Your task to perform on an android device: open app "Google Docs" Image 0: 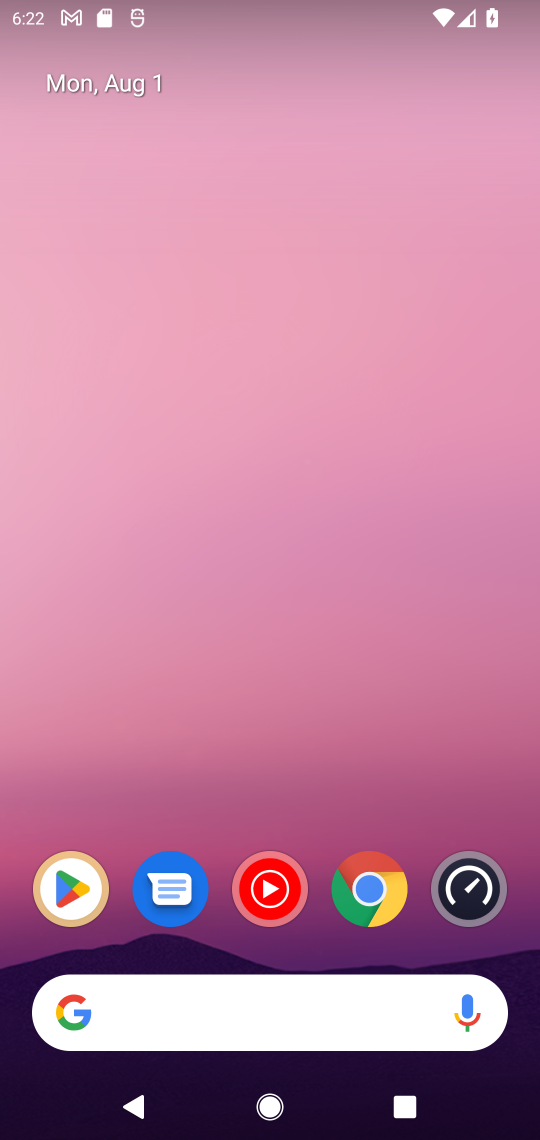
Step 0: click (202, 293)
Your task to perform on an android device: open app "Google Docs" Image 1: 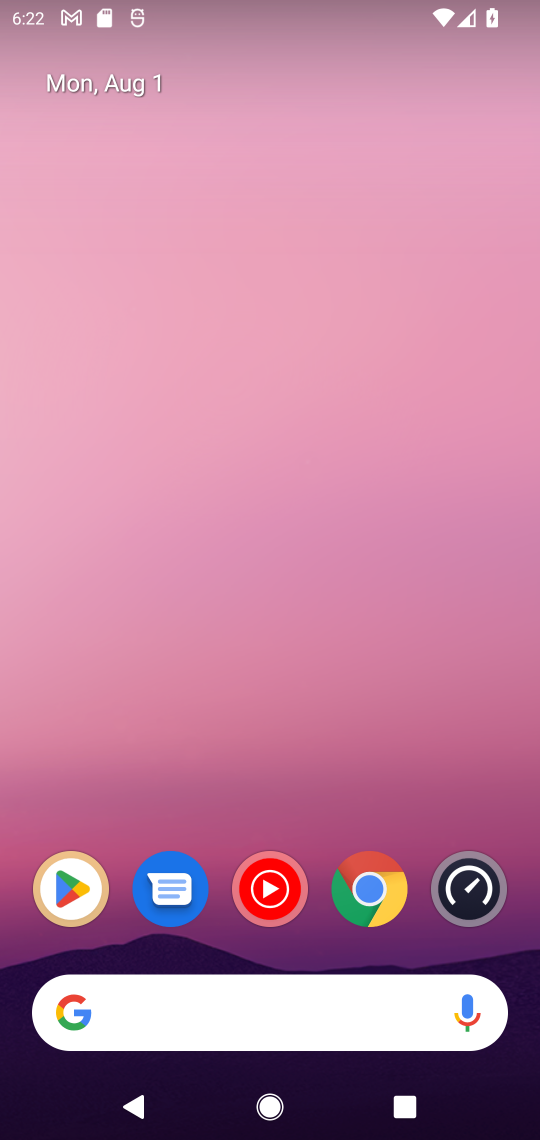
Step 1: drag from (262, 885) to (262, 243)
Your task to perform on an android device: open app "Google Docs" Image 2: 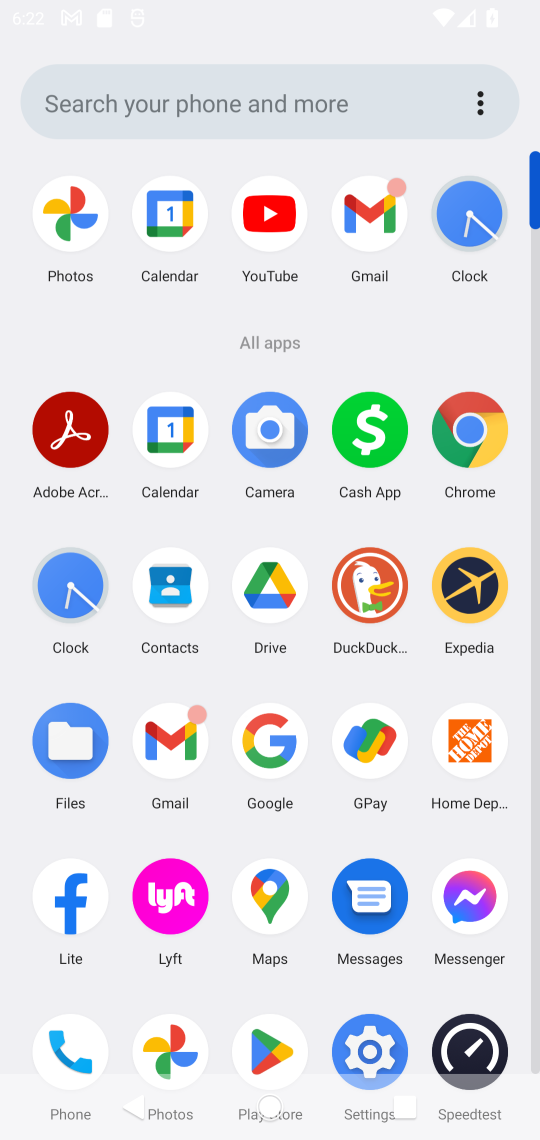
Step 2: drag from (343, 627) to (193, 209)
Your task to perform on an android device: open app "Google Docs" Image 3: 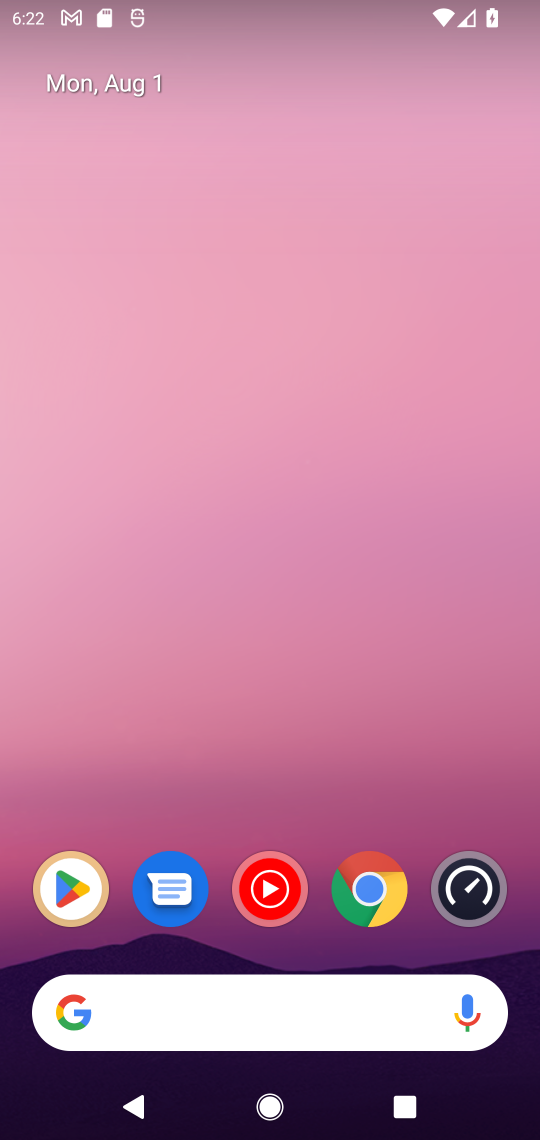
Step 3: click (264, 347)
Your task to perform on an android device: open app "Google Docs" Image 4: 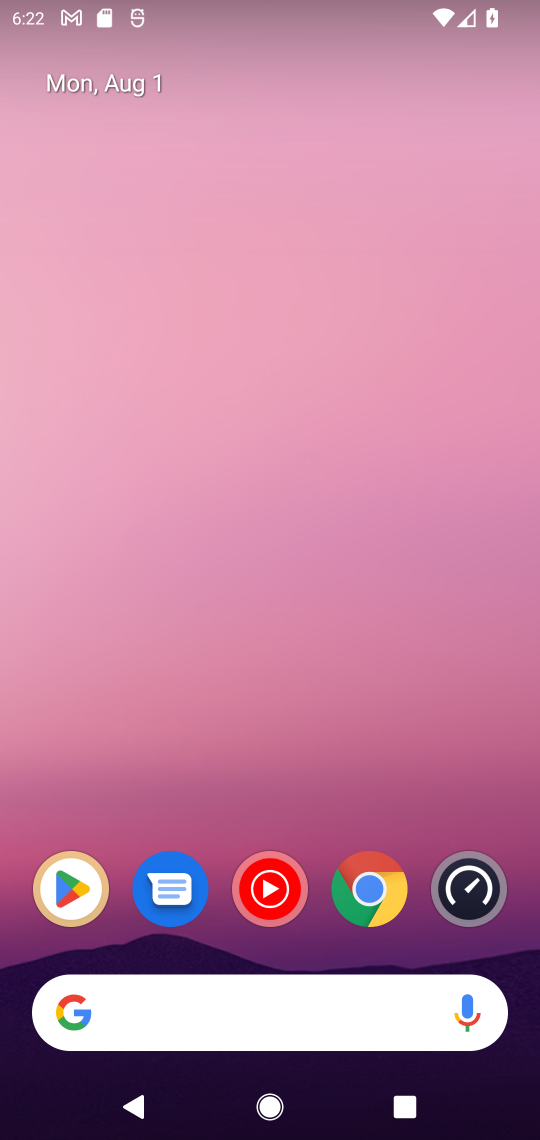
Step 4: click (245, 527)
Your task to perform on an android device: open app "Google Docs" Image 5: 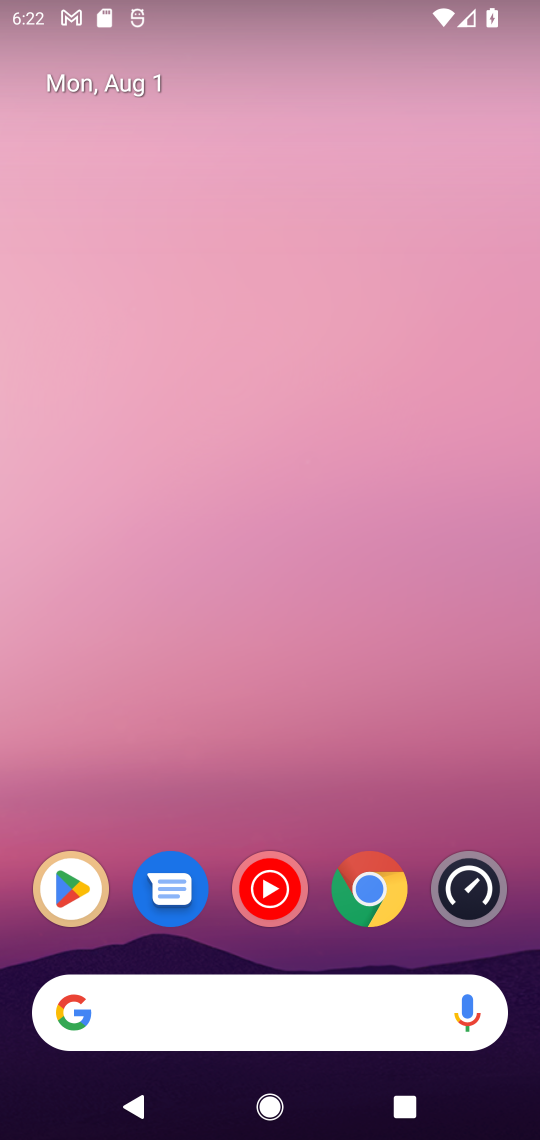
Step 5: drag from (340, 519) to (387, 320)
Your task to perform on an android device: open app "Google Docs" Image 6: 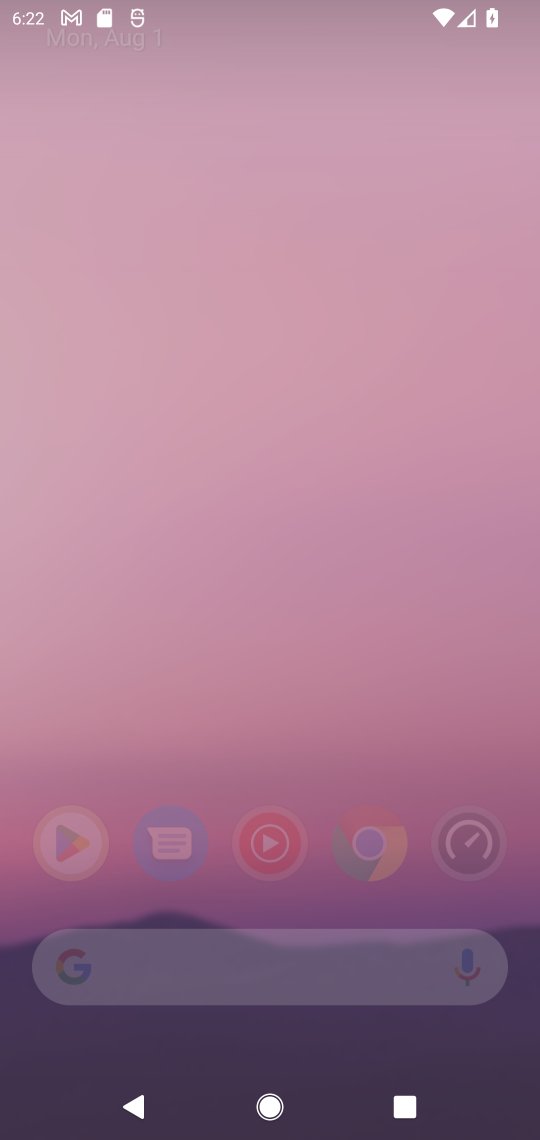
Step 6: drag from (290, 748) to (290, 246)
Your task to perform on an android device: open app "Google Docs" Image 7: 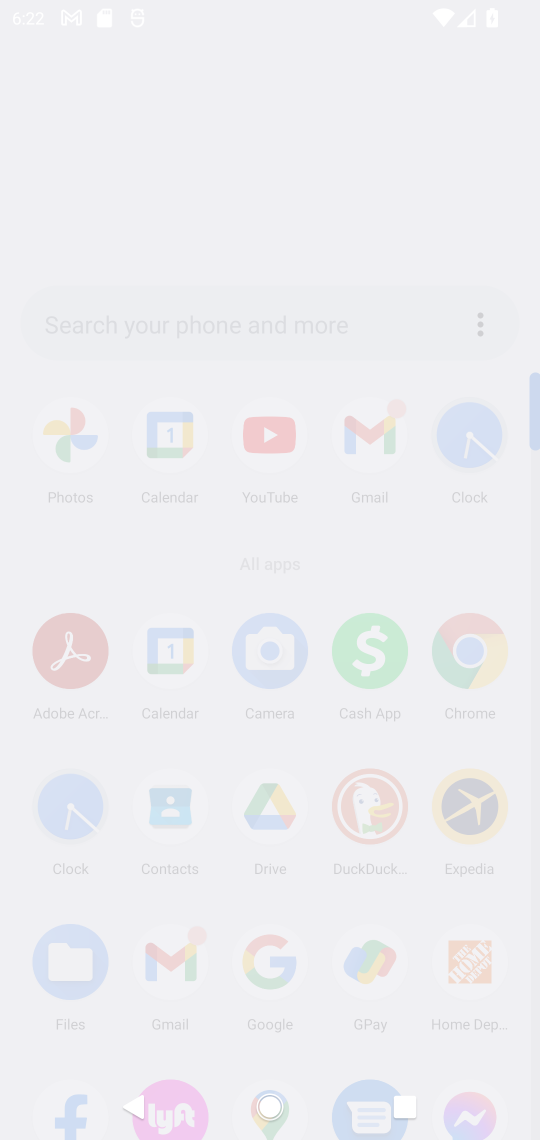
Step 7: drag from (341, 707) to (341, 122)
Your task to perform on an android device: open app "Google Docs" Image 8: 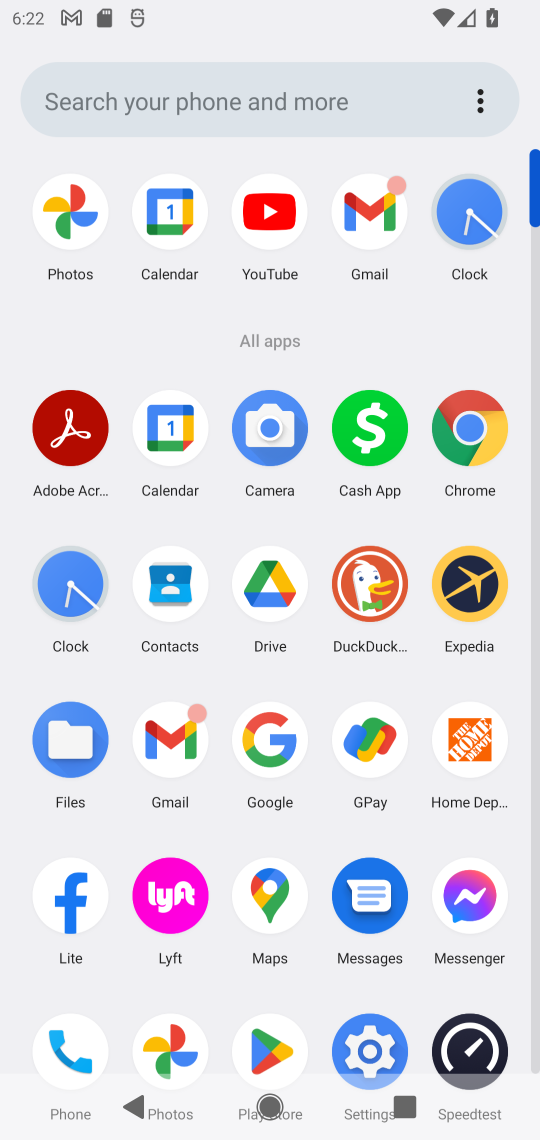
Step 8: drag from (258, 519) to (258, 96)
Your task to perform on an android device: open app "Google Docs" Image 9: 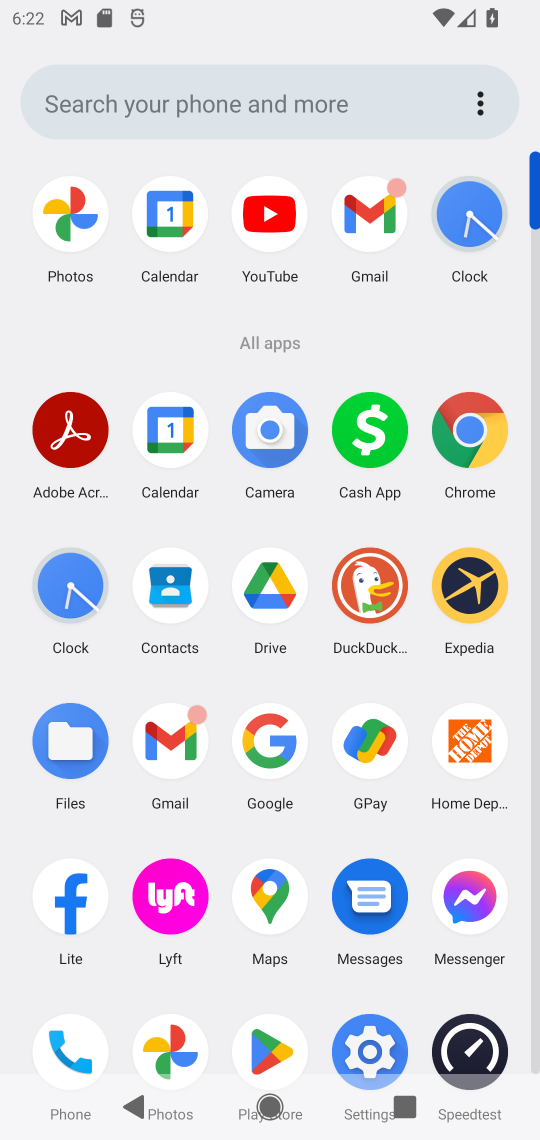
Step 9: drag from (258, 541) to (258, 148)
Your task to perform on an android device: open app "Google Docs" Image 10: 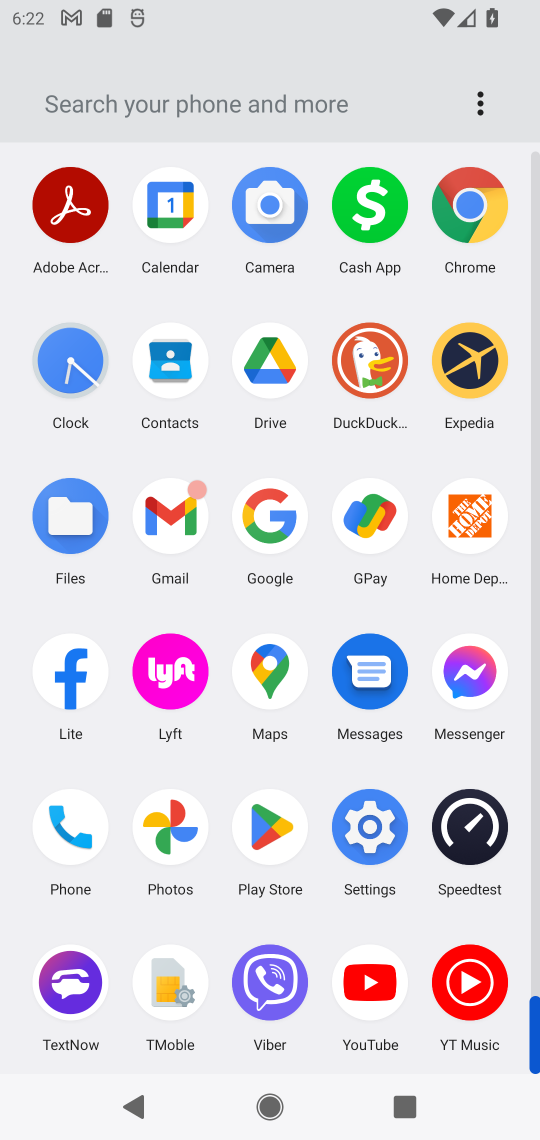
Step 10: click (265, 823)
Your task to perform on an android device: open app "Google Docs" Image 11: 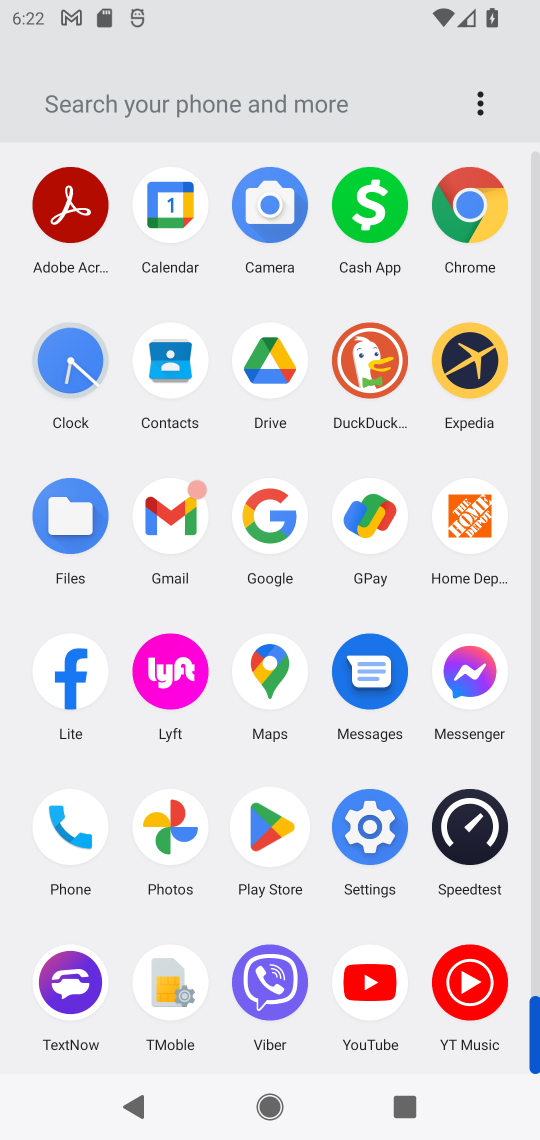
Step 11: click (282, 835)
Your task to perform on an android device: open app "Google Docs" Image 12: 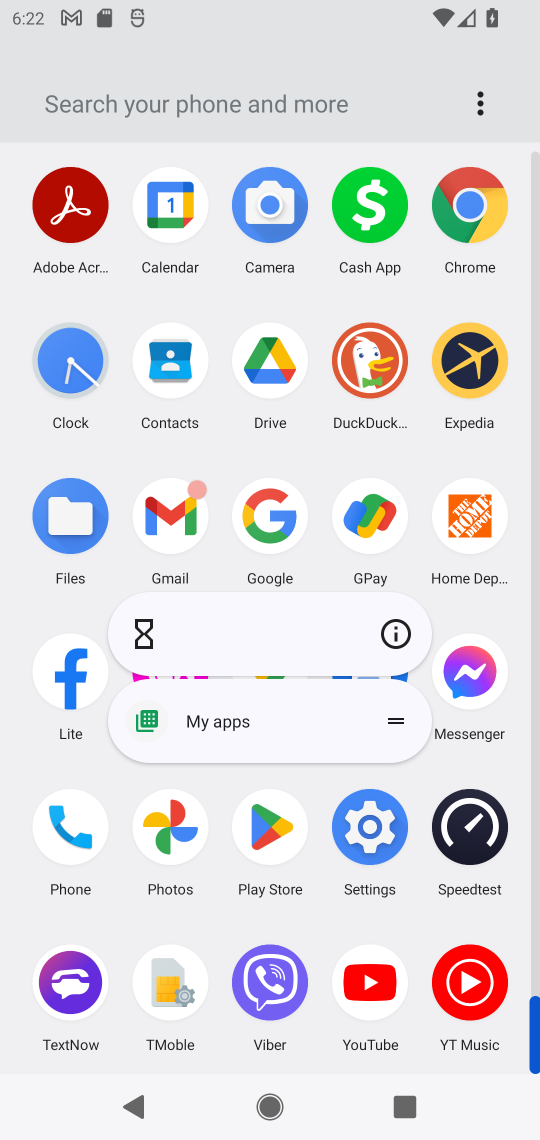
Step 12: click (273, 827)
Your task to perform on an android device: open app "Google Docs" Image 13: 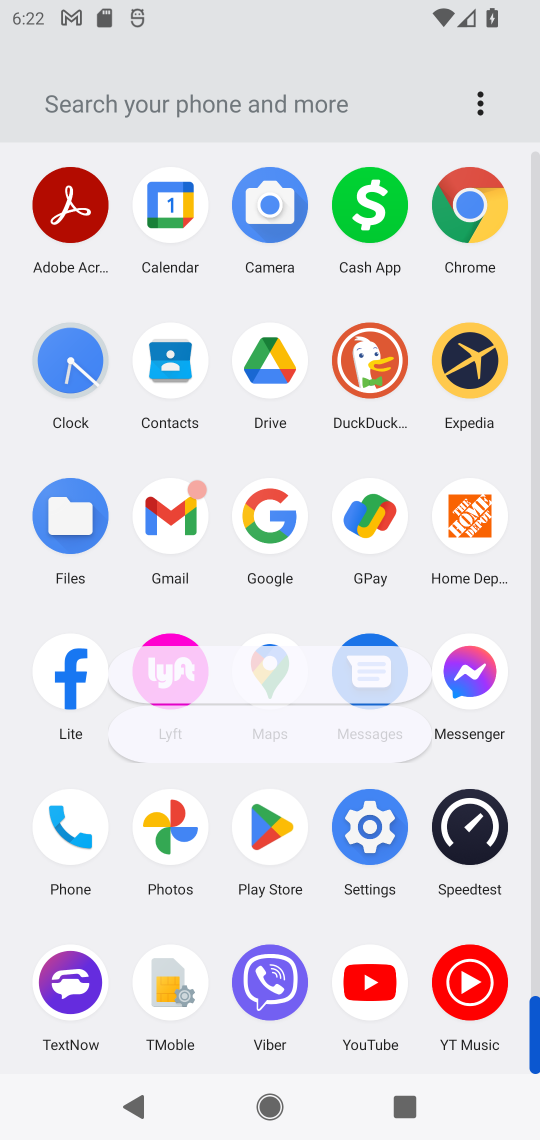
Step 13: click (276, 830)
Your task to perform on an android device: open app "Google Docs" Image 14: 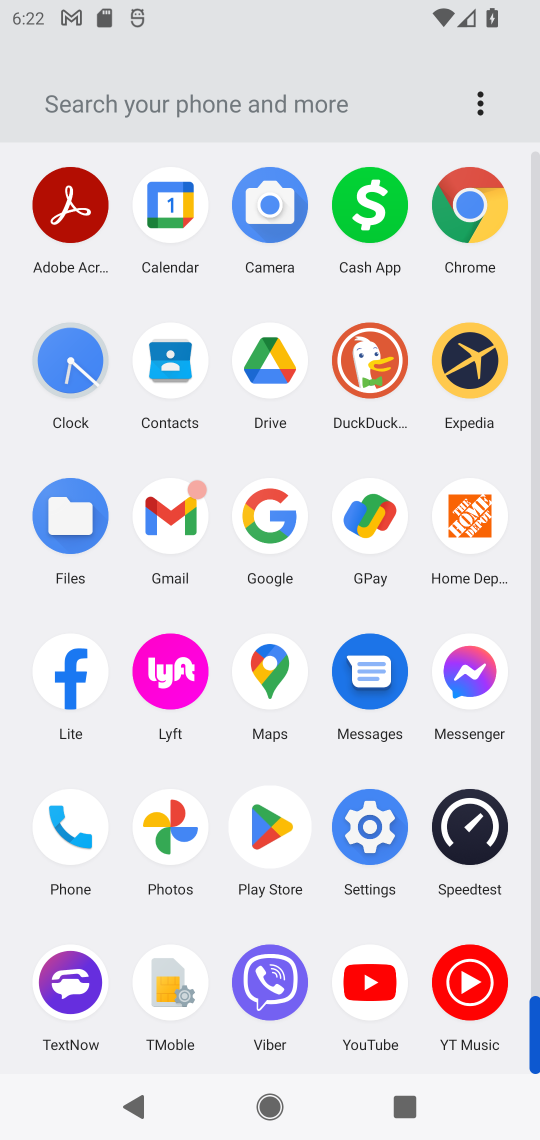
Step 14: click (276, 832)
Your task to perform on an android device: open app "Google Docs" Image 15: 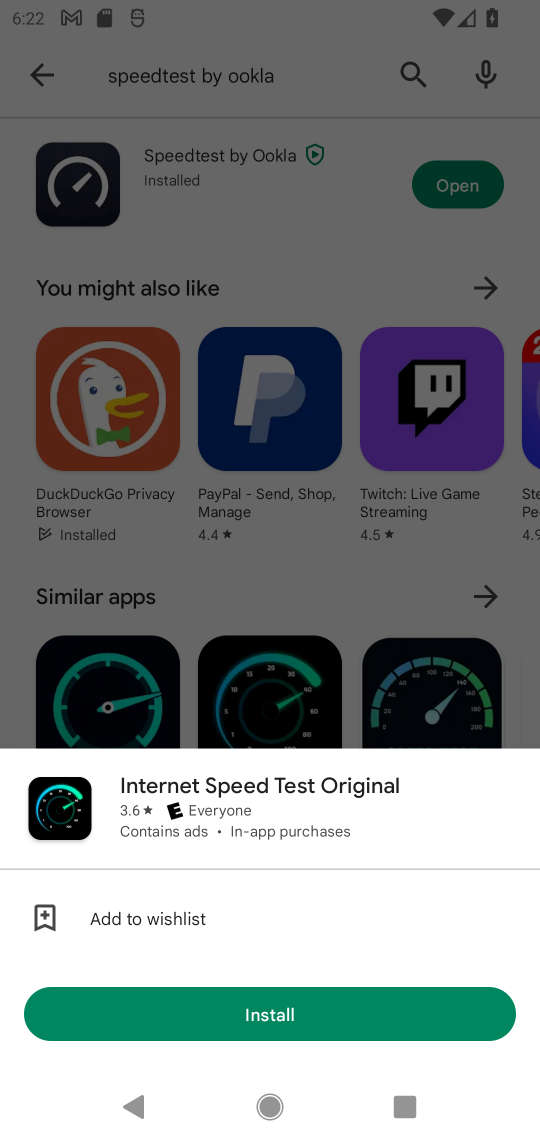
Step 15: click (39, 74)
Your task to perform on an android device: open app "Google Docs" Image 16: 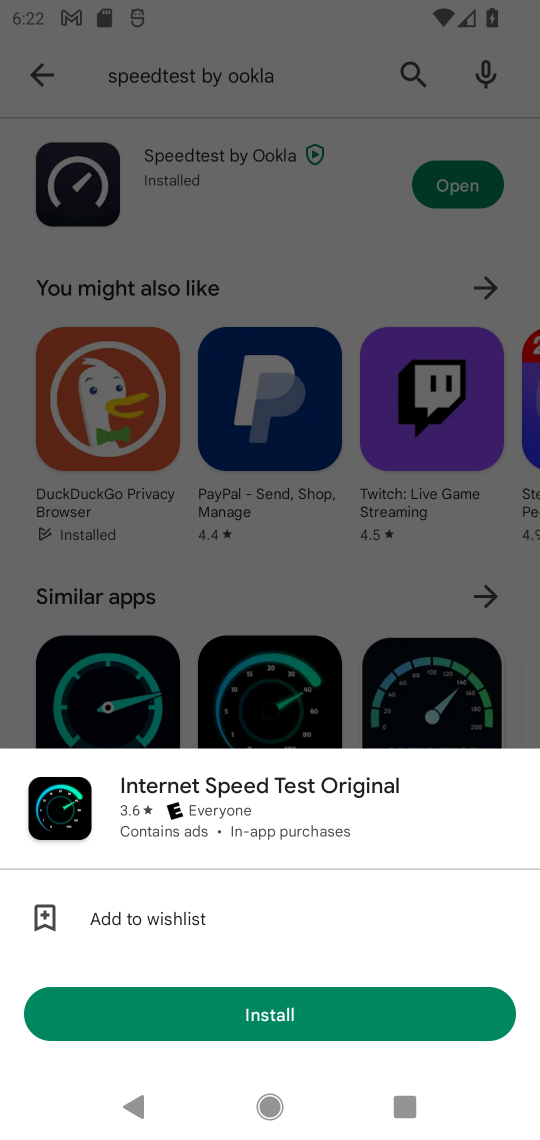
Step 16: click (39, 74)
Your task to perform on an android device: open app "Google Docs" Image 17: 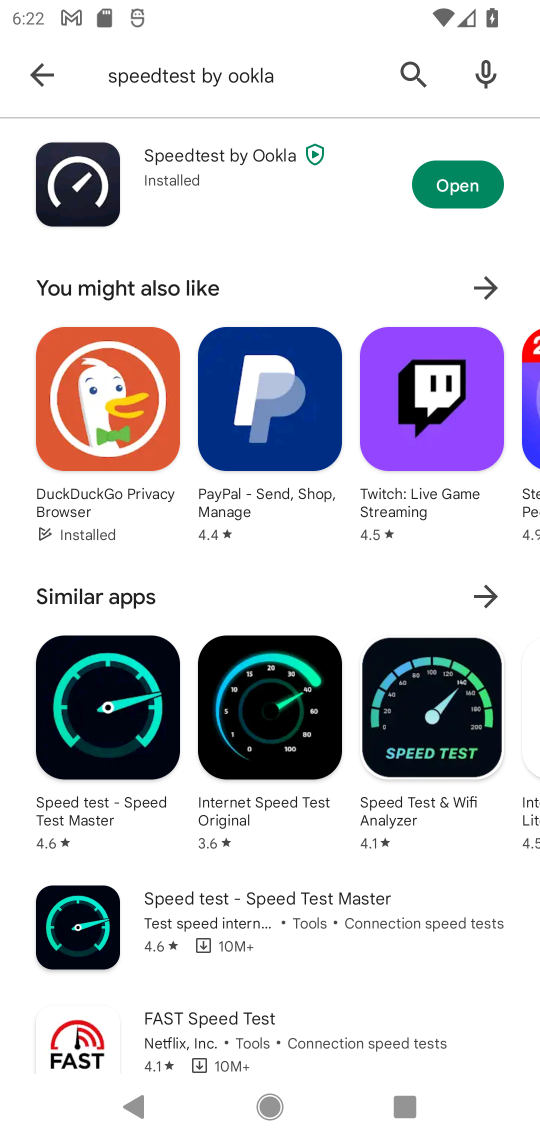
Step 17: click (51, 85)
Your task to perform on an android device: open app "Google Docs" Image 18: 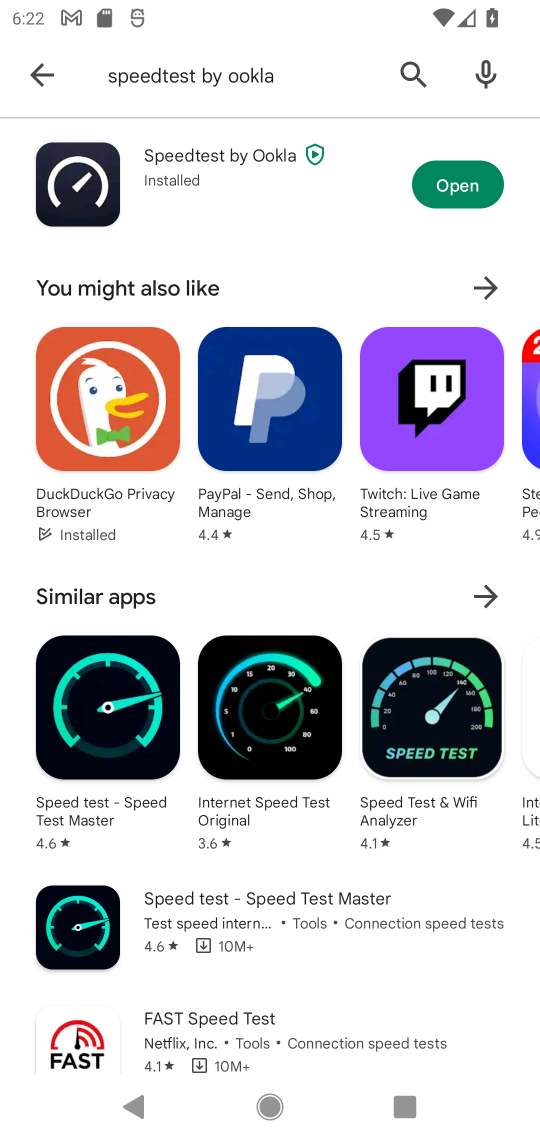
Step 18: click (36, 63)
Your task to perform on an android device: open app "Google Docs" Image 19: 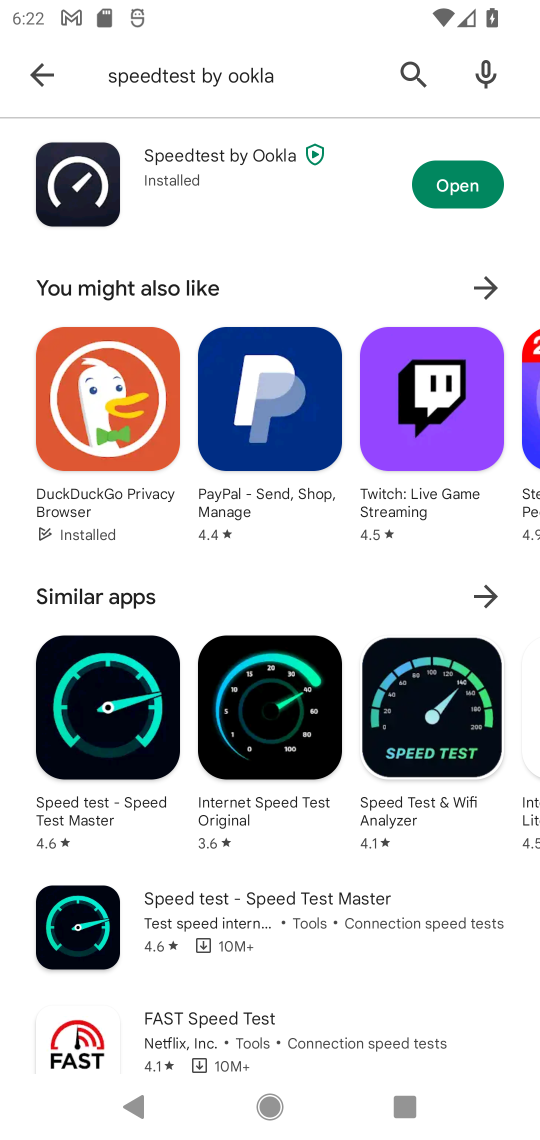
Step 19: click (35, 62)
Your task to perform on an android device: open app "Google Docs" Image 20: 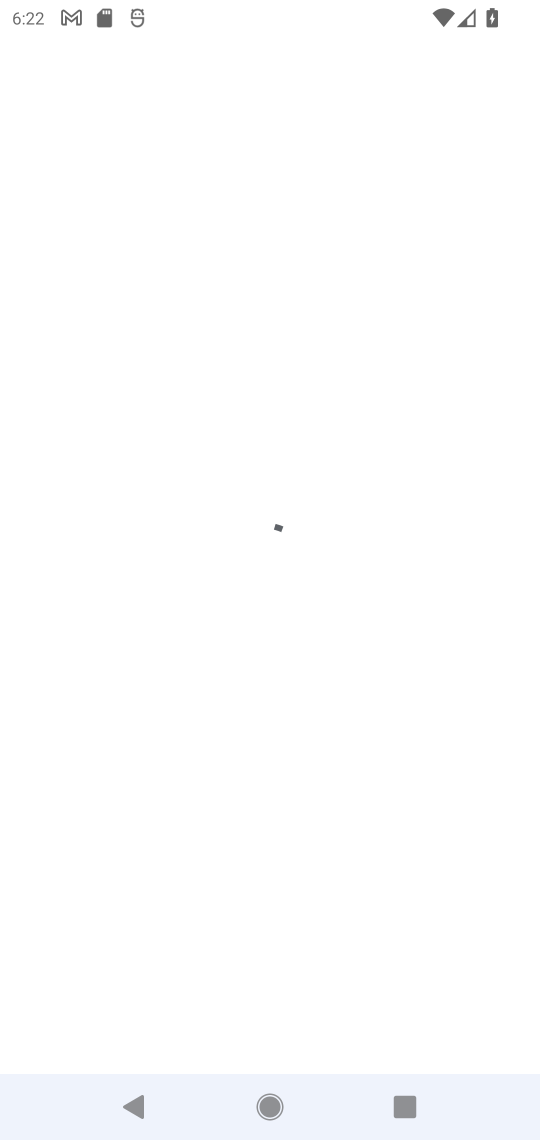
Step 20: click (36, 63)
Your task to perform on an android device: open app "Google Docs" Image 21: 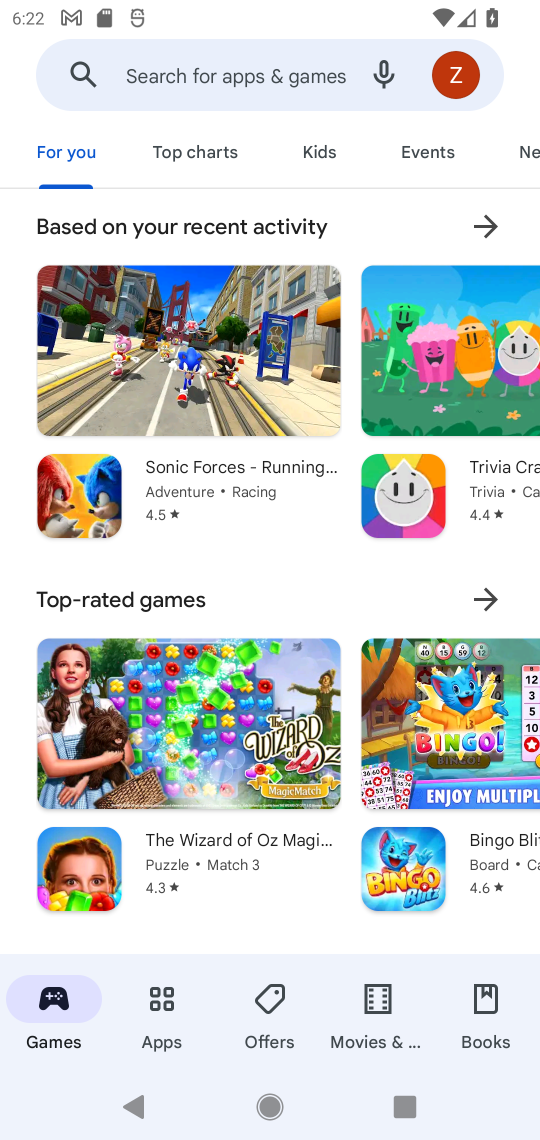
Step 21: click (148, 68)
Your task to perform on an android device: open app "Google Docs" Image 22: 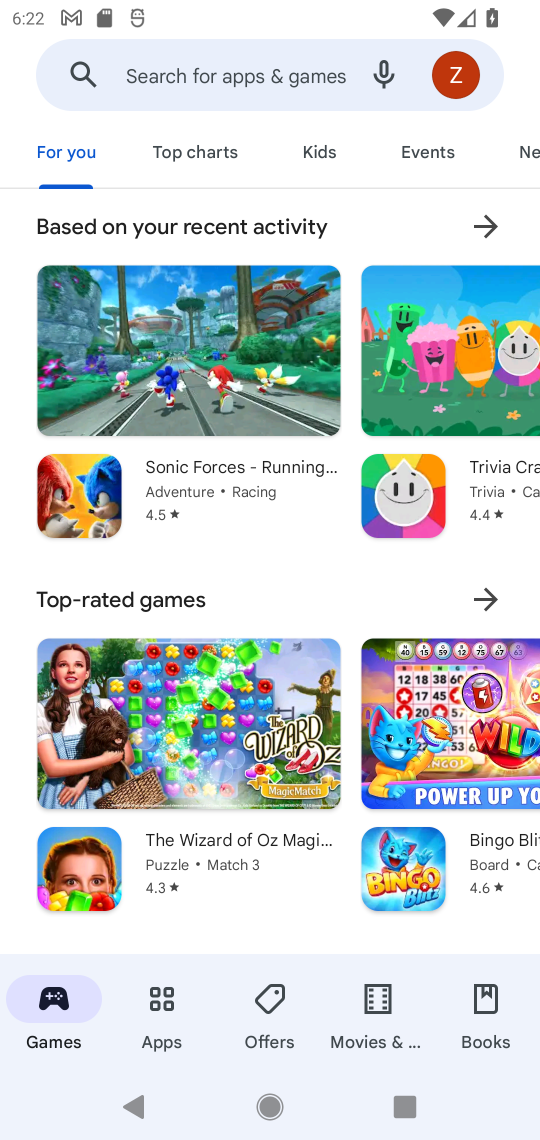
Step 22: click (148, 68)
Your task to perform on an android device: open app "Google Docs" Image 23: 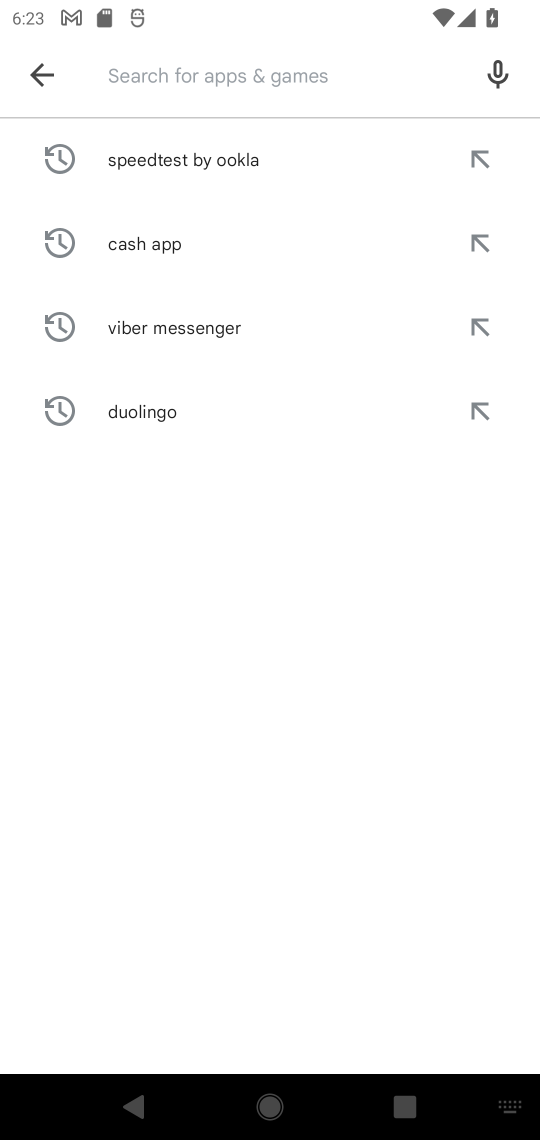
Step 23: type "Google  Docs"
Your task to perform on an android device: open app "Google Docs" Image 24: 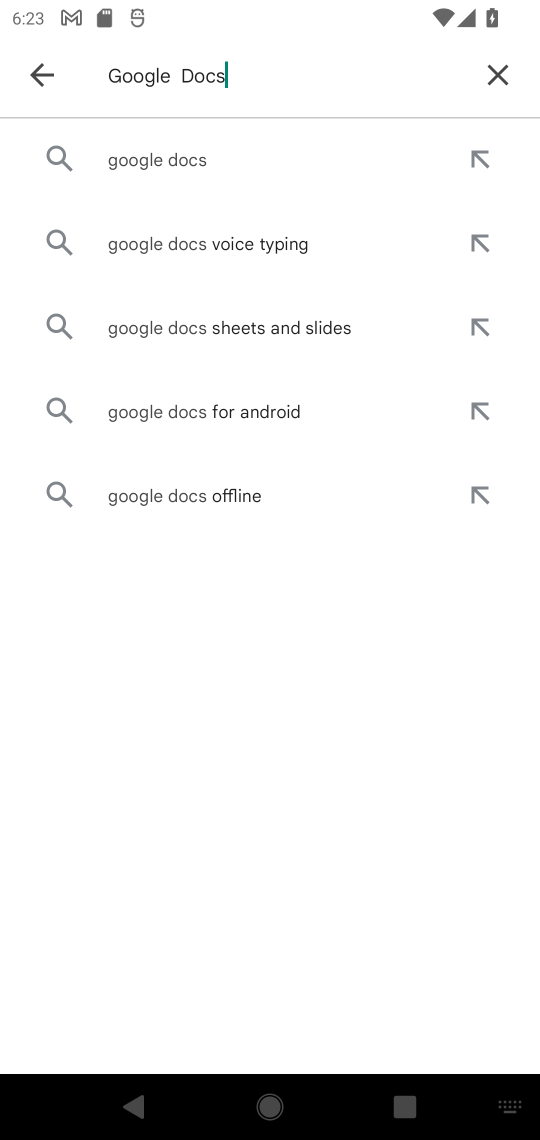
Step 24: click (162, 158)
Your task to perform on an android device: open app "Google Docs" Image 25: 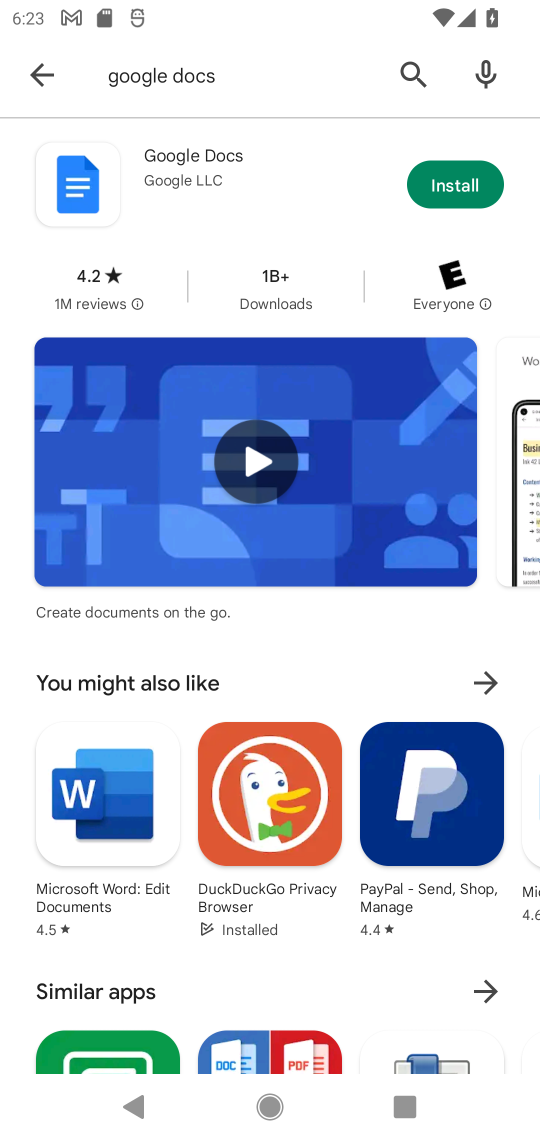
Step 25: click (449, 175)
Your task to perform on an android device: open app "Google Docs" Image 26: 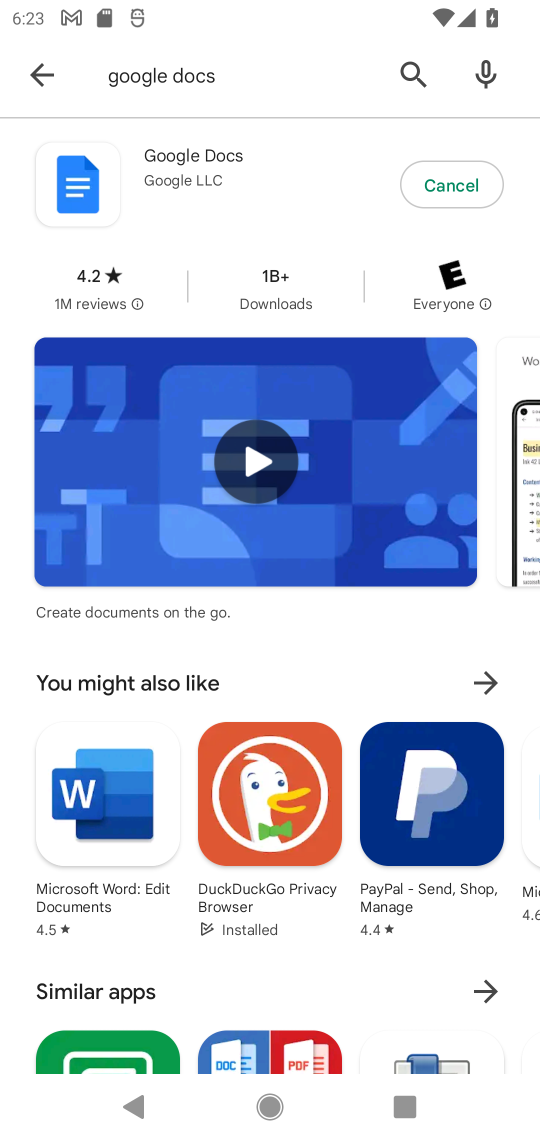
Step 26: click (453, 176)
Your task to perform on an android device: open app "Google Docs" Image 27: 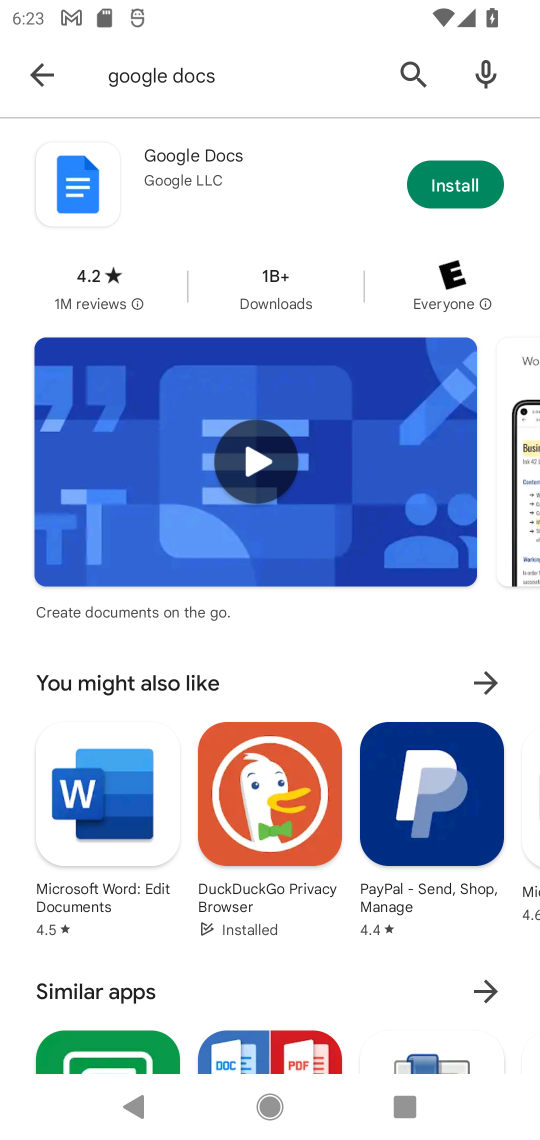
Step 27: click (453, 176)
Your task to perform on an android device: open app "Google Docs" Image 28: 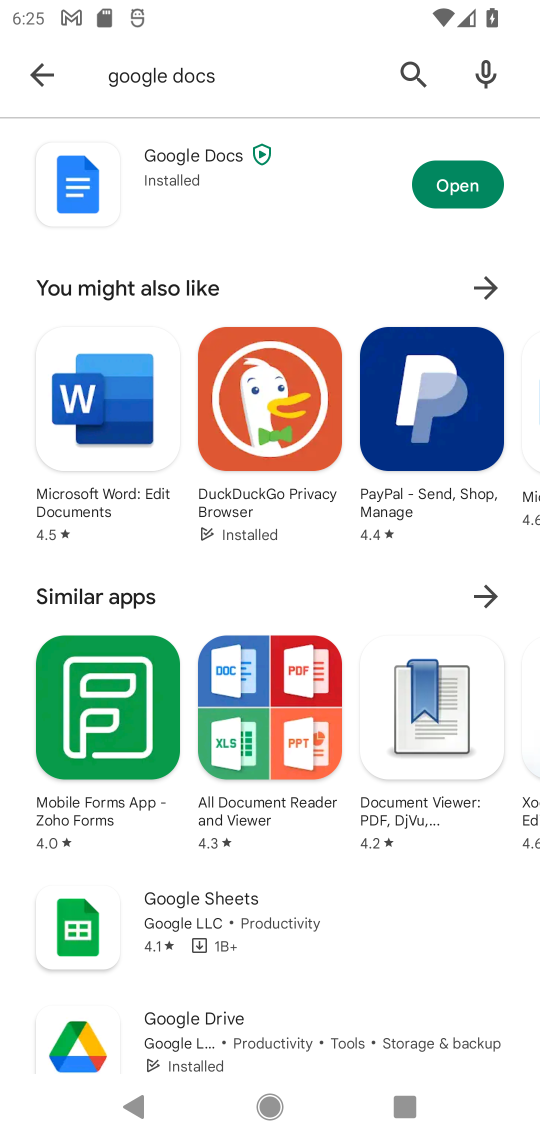
Step 28: click (466, 189)
Your task to perform on an android device: open app "Google Docs" Image 29: 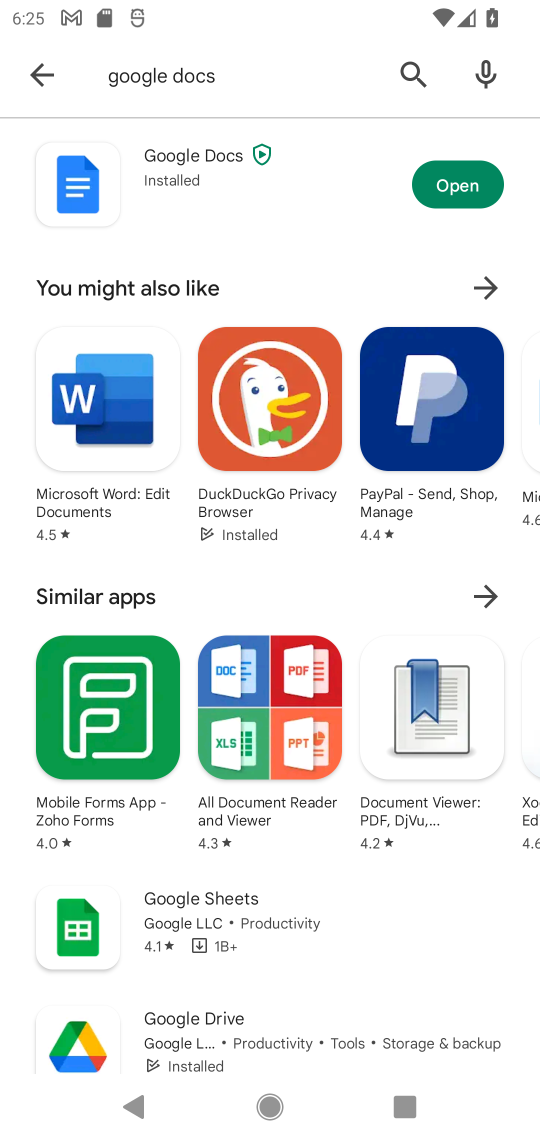
Step 29: click (463, 186)
Your task to perform on an android device: open app "Google Docs" Image 30: 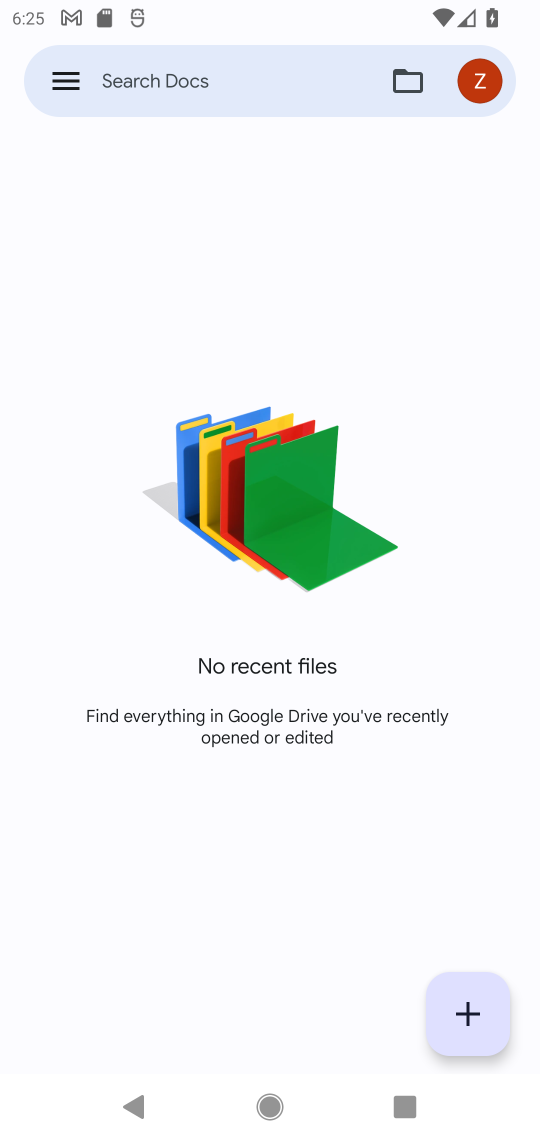
Step 30: task complete